Your task to perform on an android device: see tabs open on other devices in the chrome app Image 0: 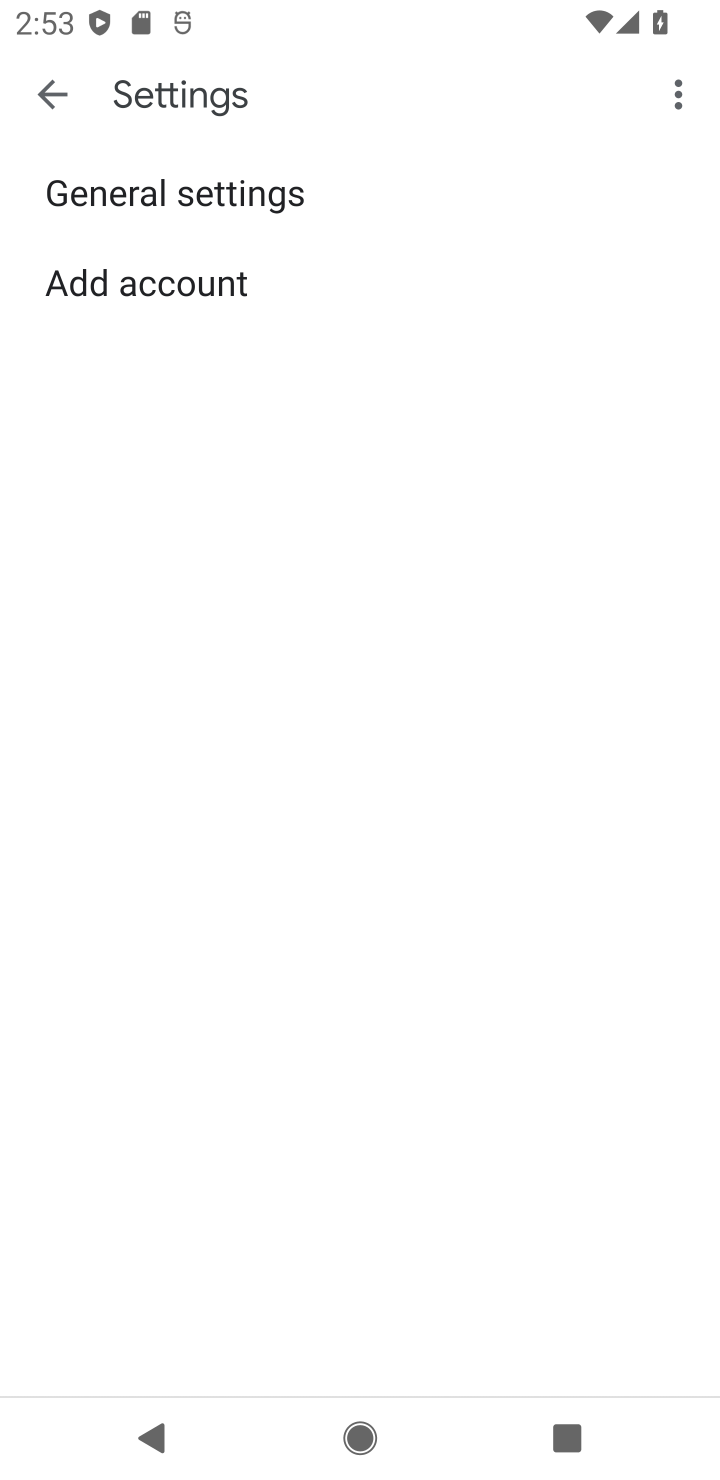
Step 0: press home button
Your task to perform on an android device: see tabs open on other devices in the chrome app Image 1: 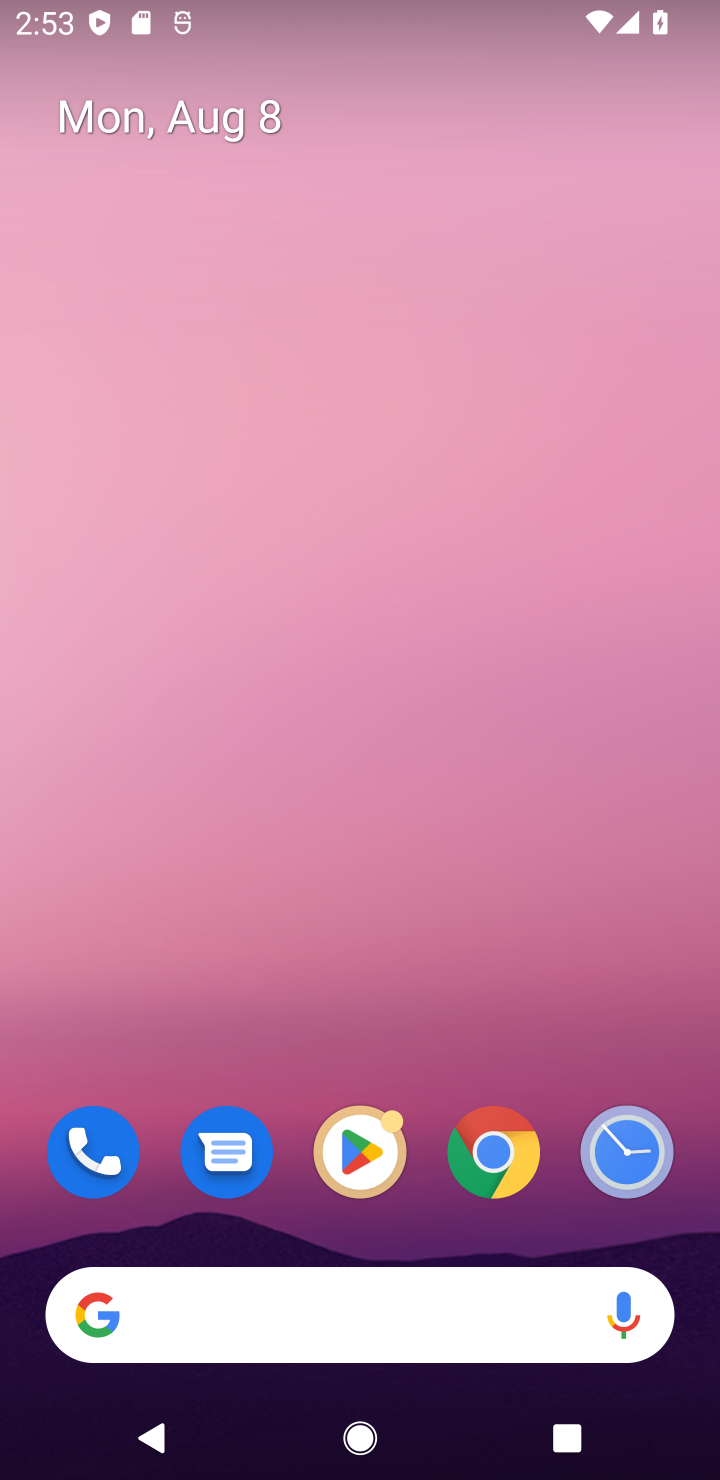
Step 1: click (543, 1121)
Your task to perform on an android device: see tabs open on other devices in the chrome app Image 2: 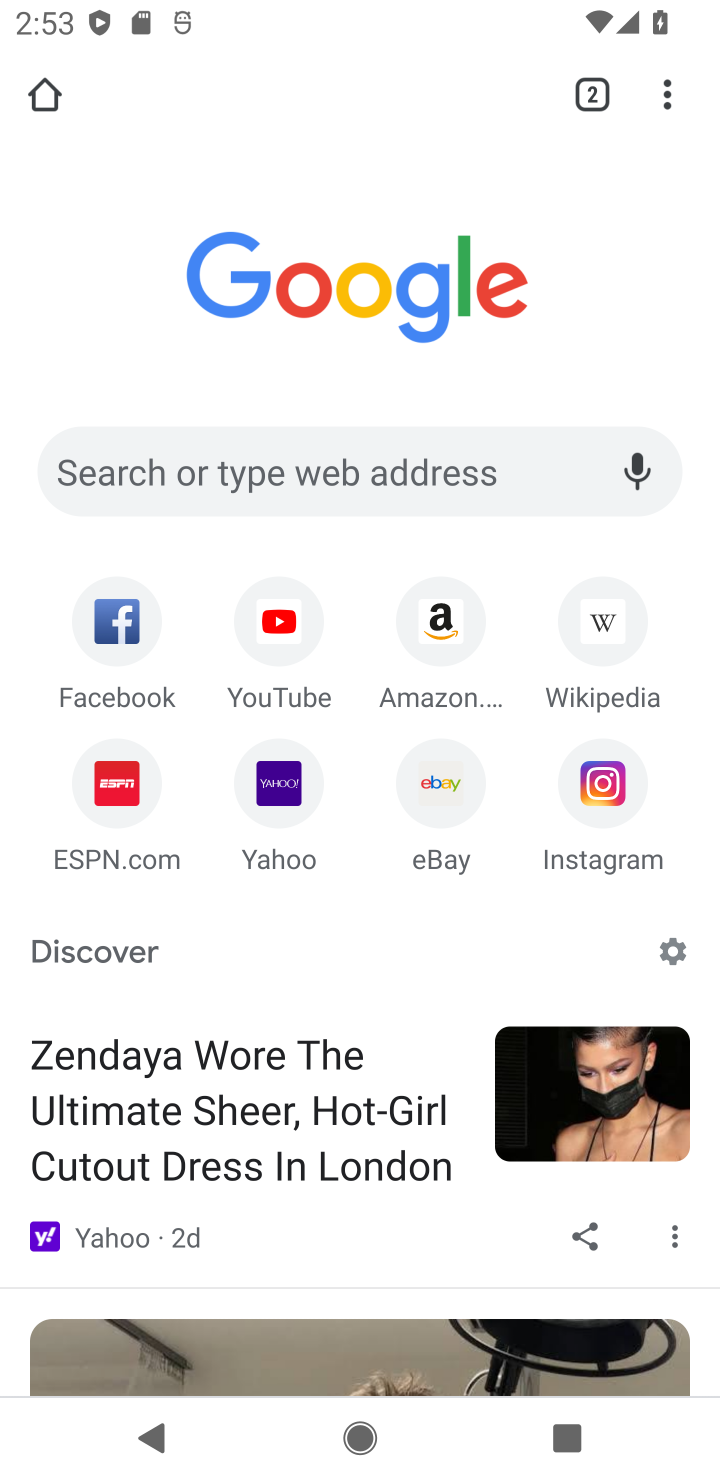
Step 2: click (654, 75)
Your task to perform on an android device: see tabs open on other devices in the chrome app Image 3: 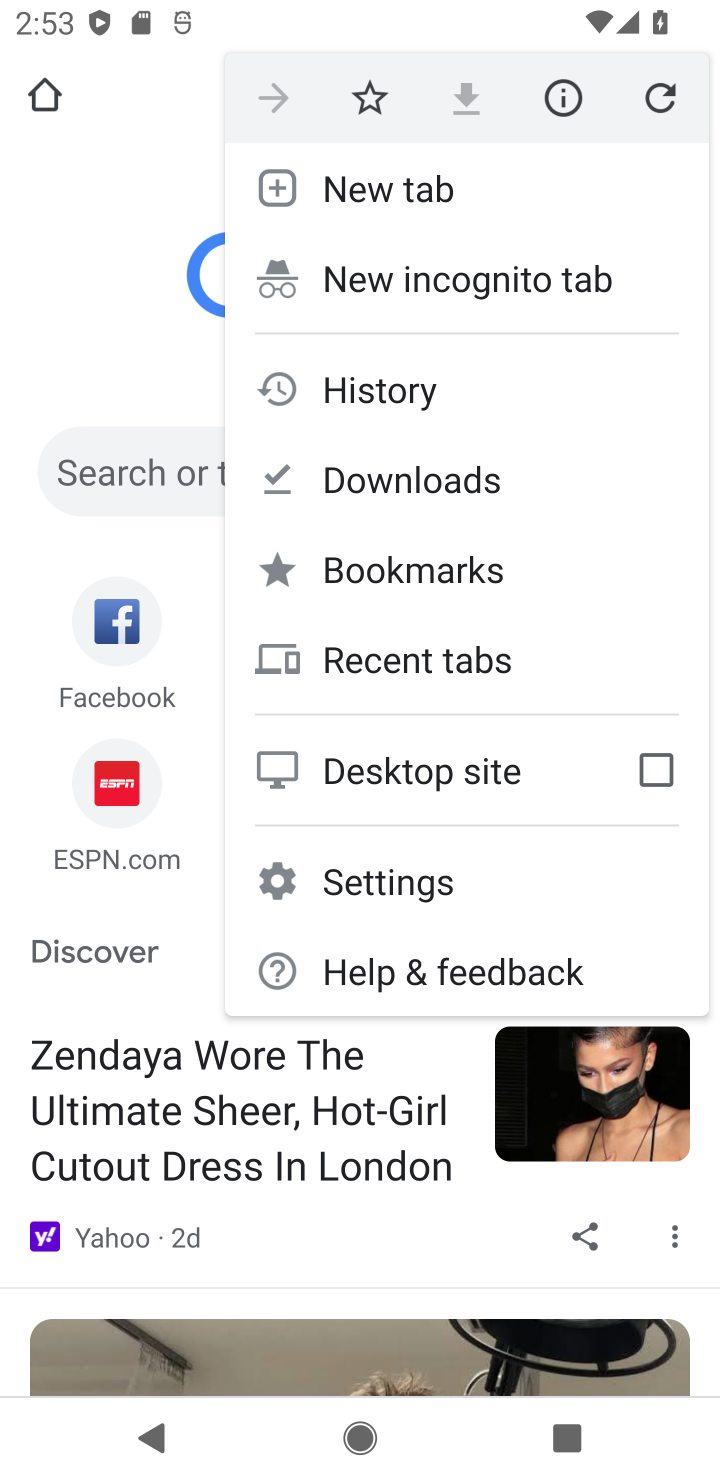
Step 3: click (411, 675)
Your task to perform on an android device: see tabs open on other devices in the chrome app Image 4: 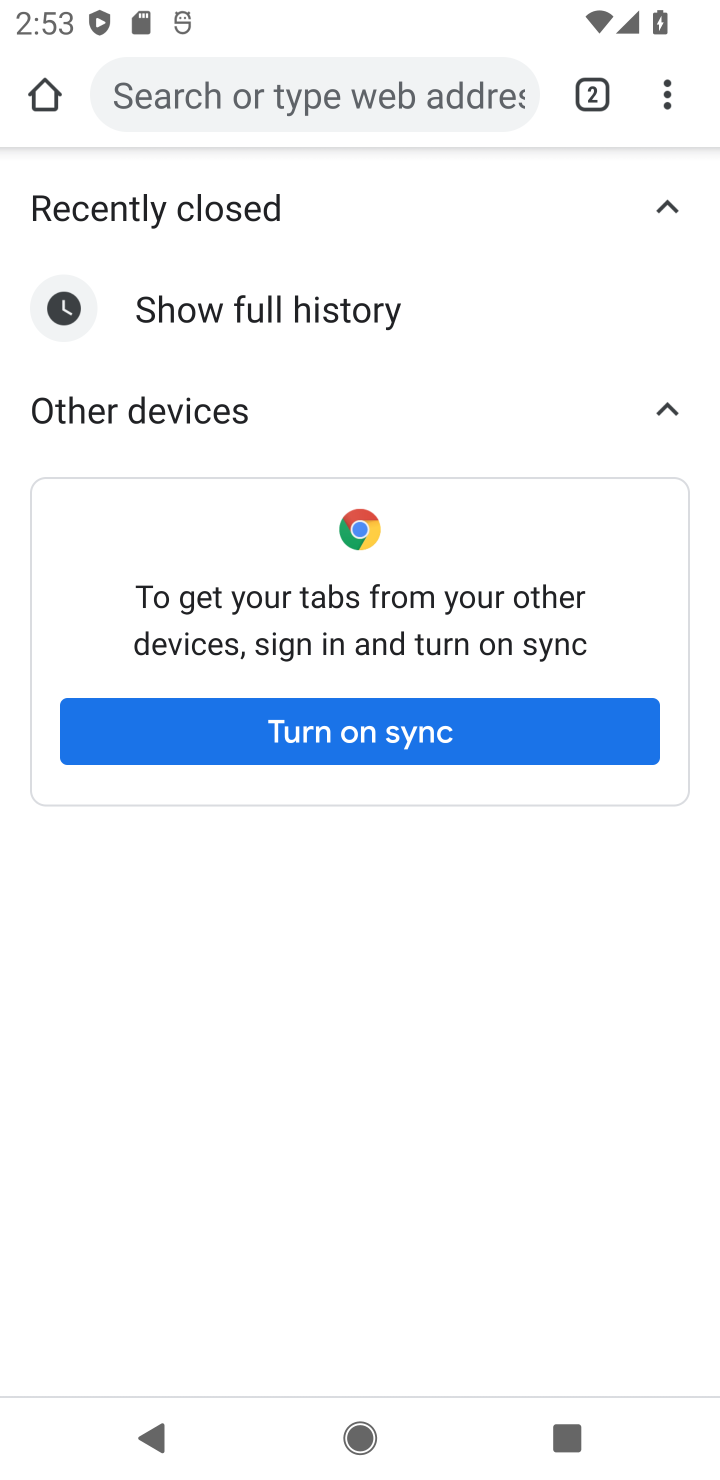
Step 4: task complete